Your task to perform on an android device: Show me popular games on the Play Store Image 0: 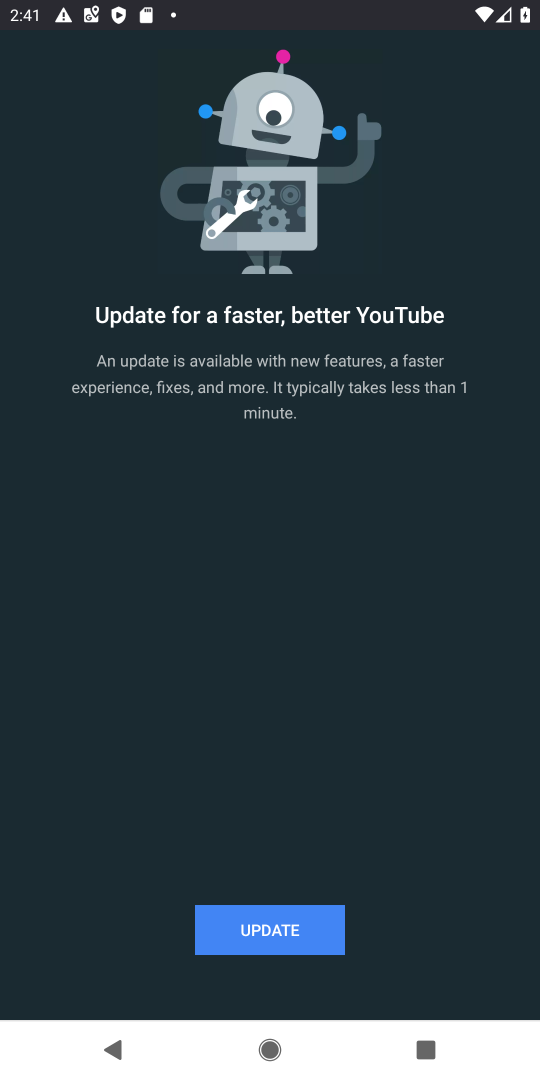
Step 0: press back button
Your task to perform on an android device: Show me popular games on the Play Store Image 1: 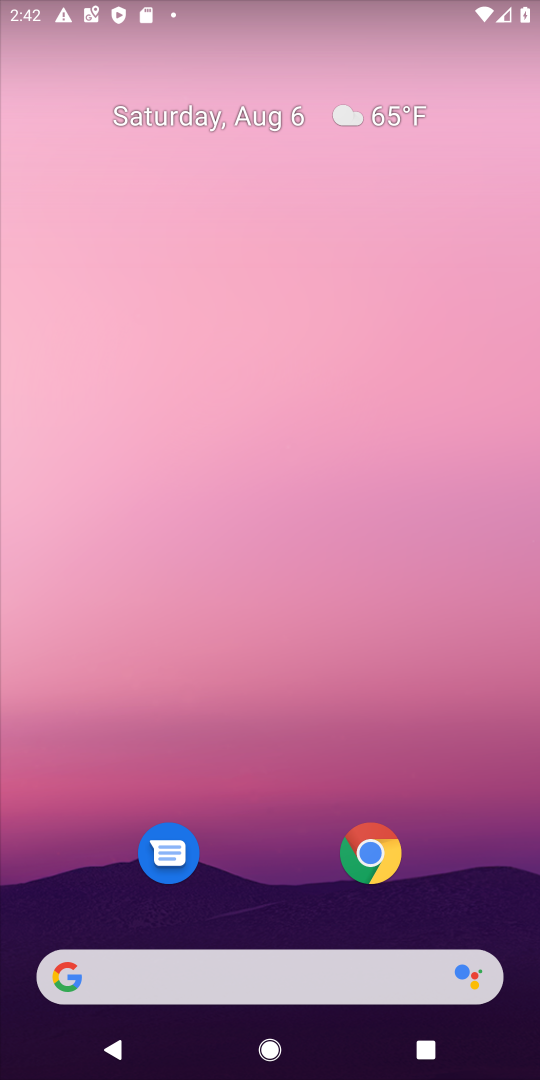
Step 1: drag from (229, 856) to (443, 84)
Your task to perform on an android device: Show me popular games on the Play Store Image 2: 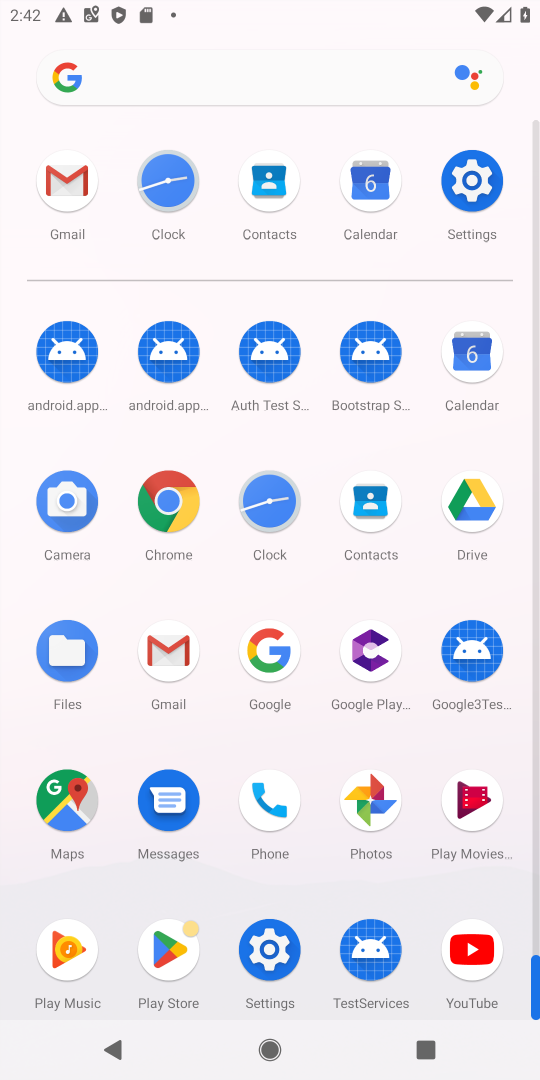
Step 2: click (166, 942)
Your task to perform on an android device: Show me popular games on the Play Store Image 3: 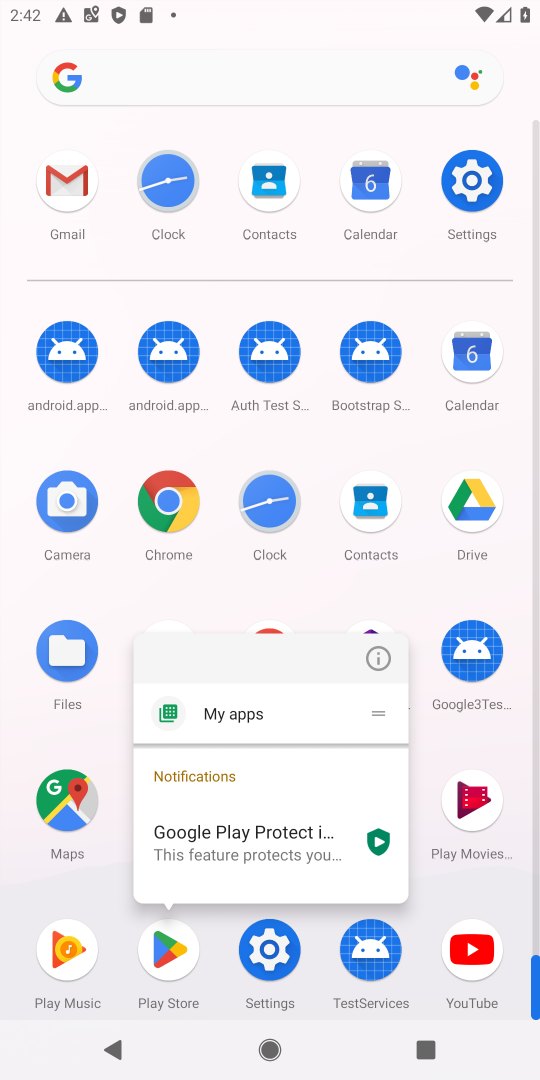
Step 3: click (189, 964)
Your task to perform on an android device: Show me popular games on the Play Store Image 4: 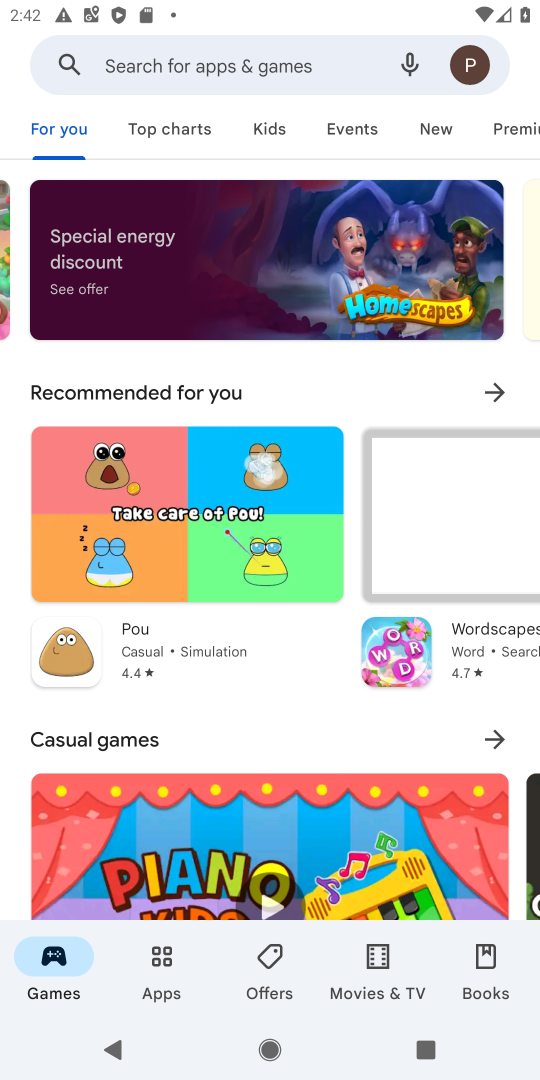
Step 4: drag from (265, 856) to (422, 159)
Your task to perform on an android device: Show me popular games on the Play Store Image 5: 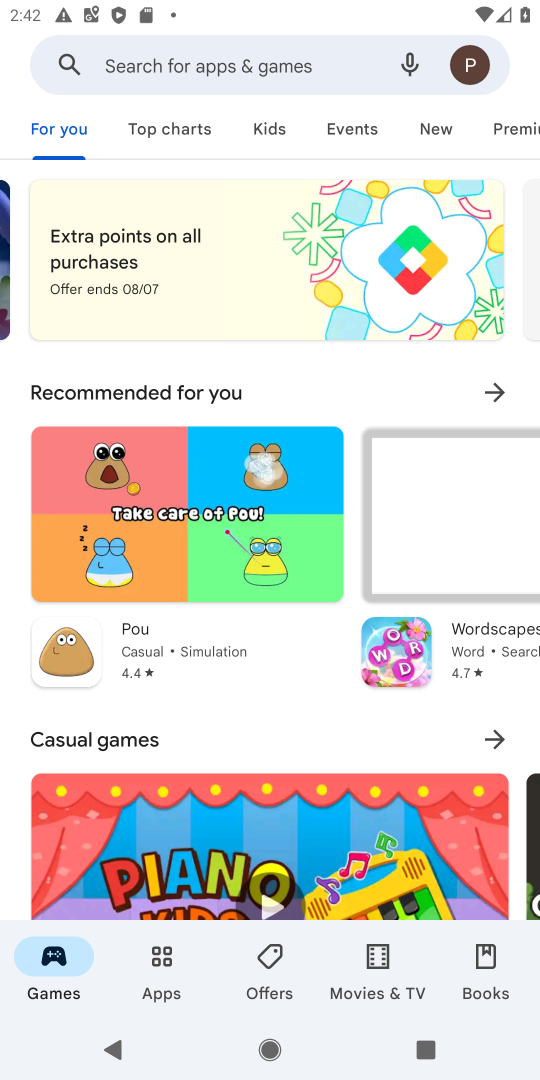
Step 5: drag from (17, 876) to (73, 193)
Your task to perform on an android device: Show me popular games on the Play Store Image 6: 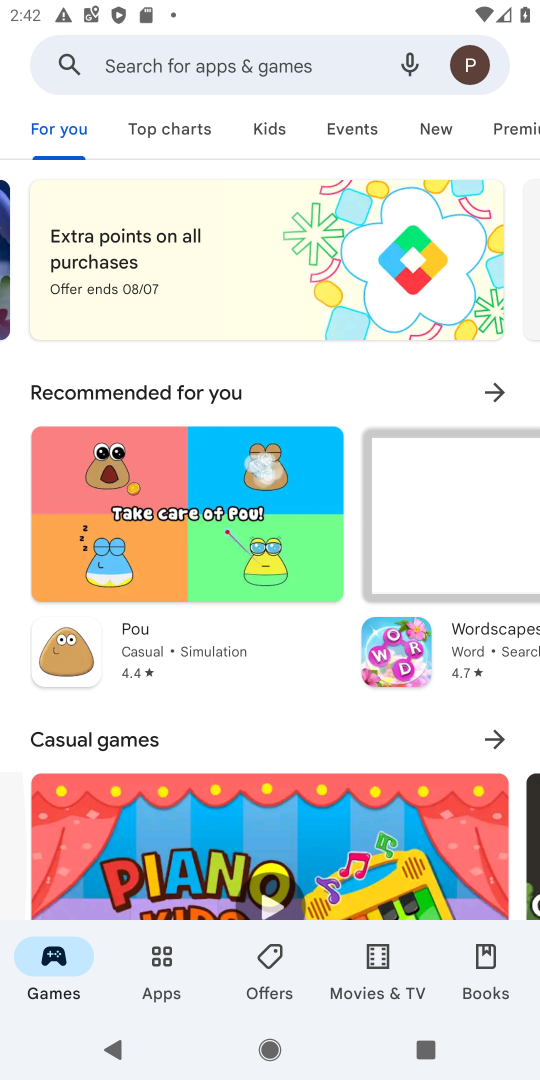
Step 6: drag from (9, 847) to (21, 192)
Your task to perform on an android device: Show me popular games on the Play Store Image 7: 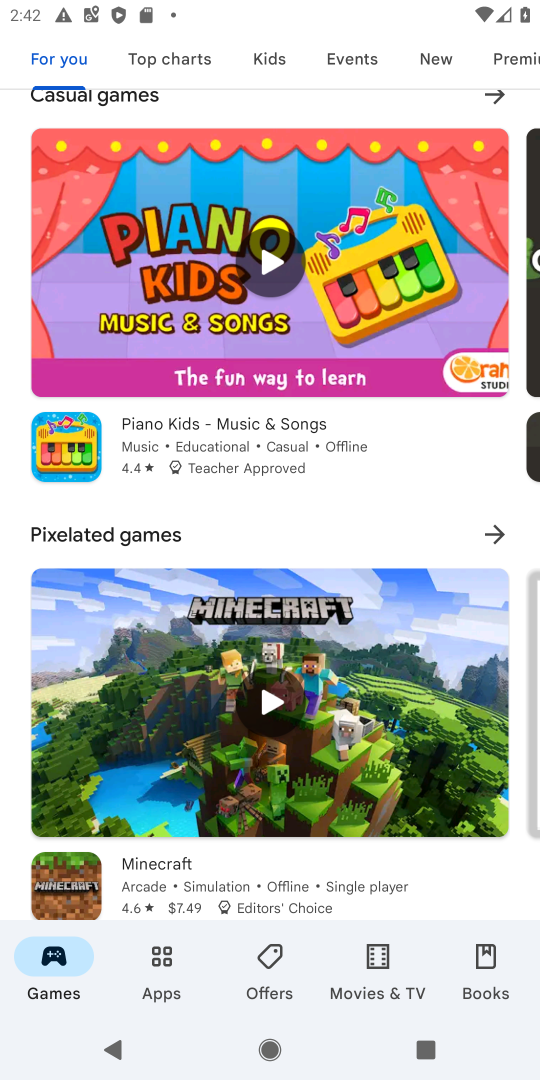
Step 7: drag from (18, 874) to (45, 211)
Your task to perform on an android device: Show me popular games on the Play Store Image 8: 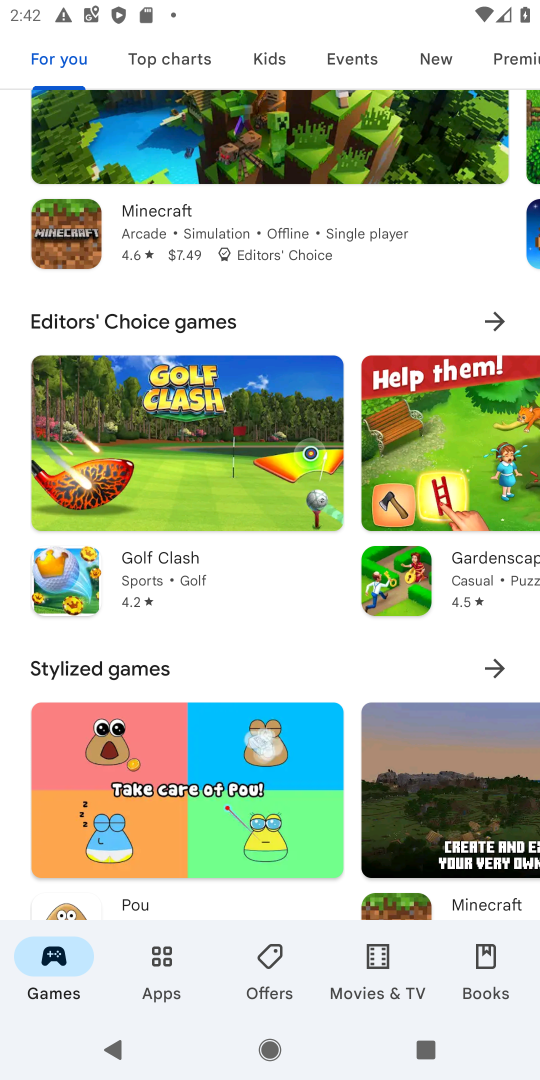
Step 8: drag from (13, 867) to (38, 220)
Your task to perform on an android device: Show me popular games on the Play Store Image 9: 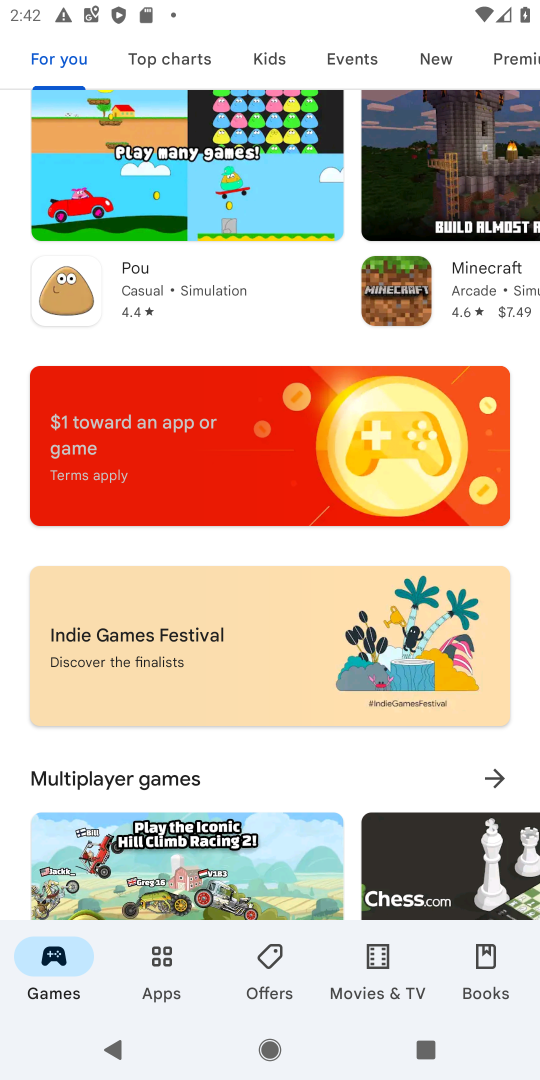
Step 9: drag from (27, 870) to (1, 287)
Your task to perform on an android device: Show me popular games on the Play Store Image 10: 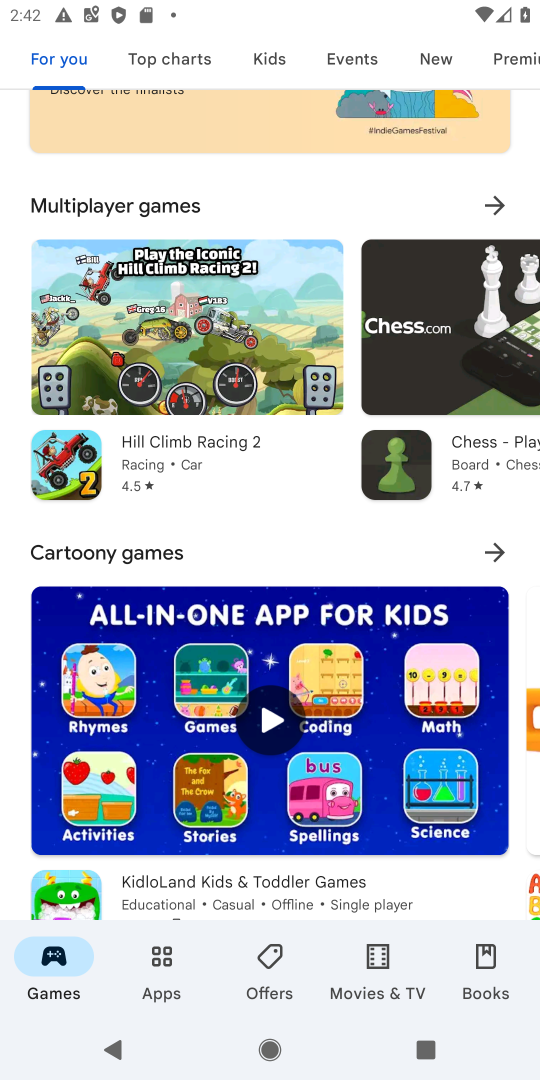
Step 10: drag from (23, 863) to (13, 218)
Your task to perform on an android device: Show me popular games on the Play Store Image 11: 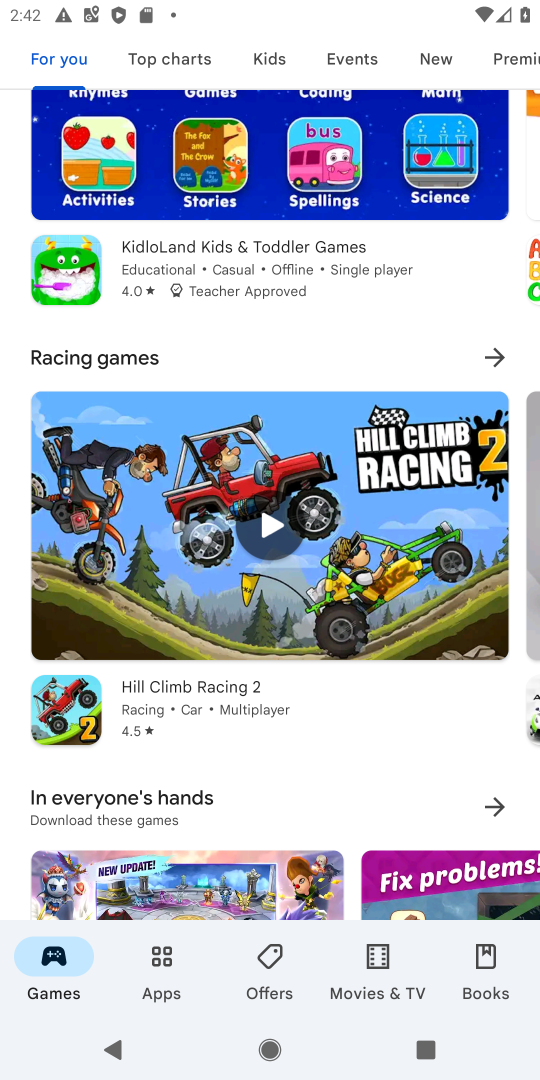
Step 11: drag from (19, 881) to (0, 249)
Your task to perform on an android device: Show me popular games on the Play Store Image 12: 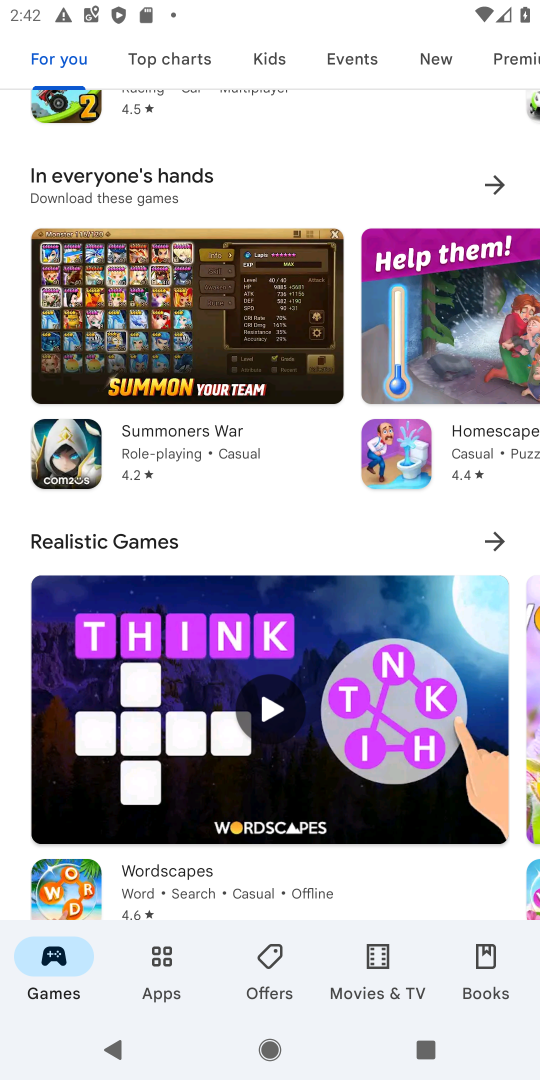
Step 12: drag from (19, 911) to (24, 229)
Your task to perform on an android device: Show me popular games on the Play Store Image 13: 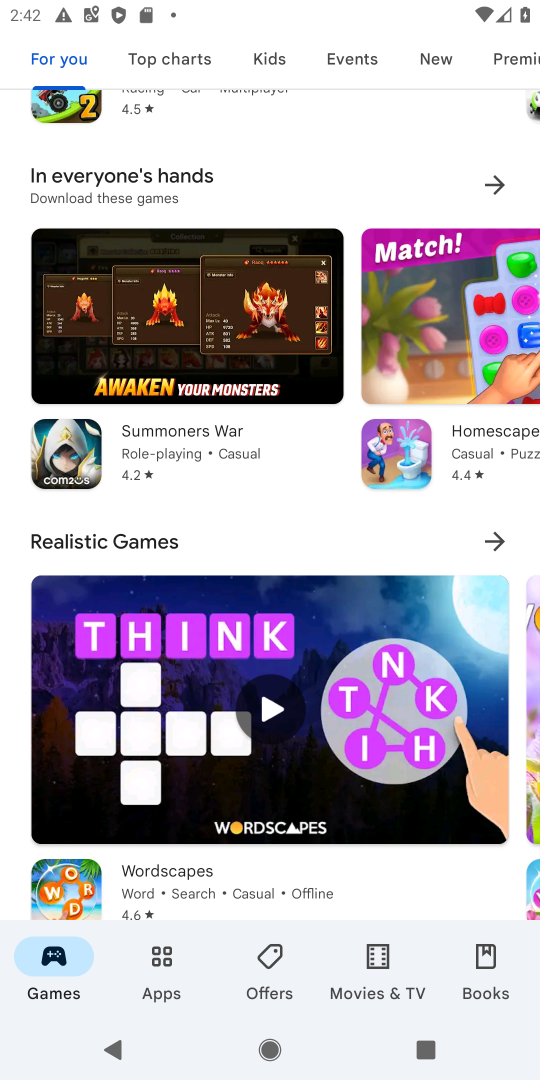
Step 13: drag from (18, 811) to (54, 279)
Your task to perform on an android device: Show me popular games on the Play Store Image 14: 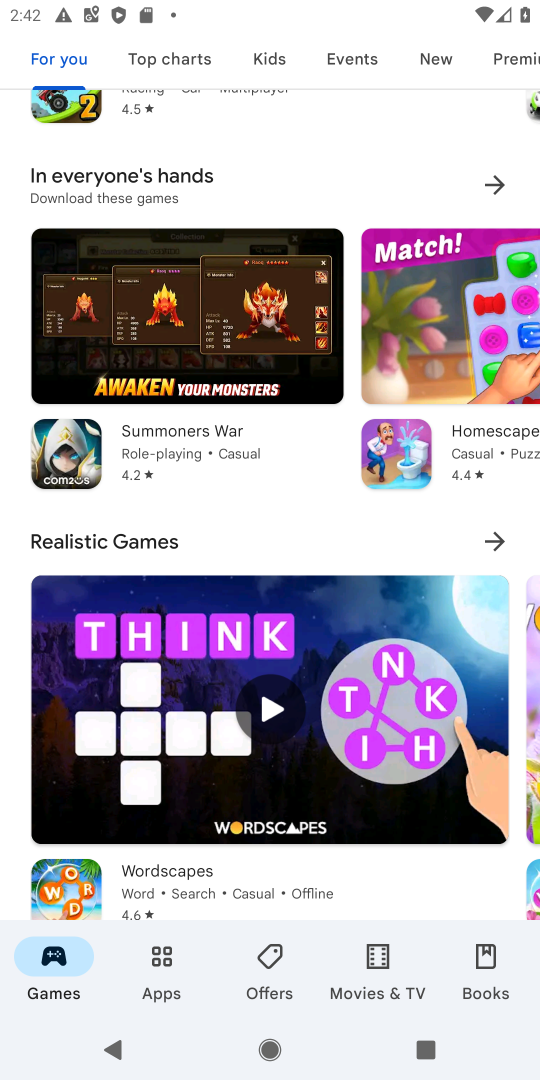
Step 14: drag from (9, 830) to (0, 578)
Your task to perform on an android device: Show me popular games on the Play Store Image 15: 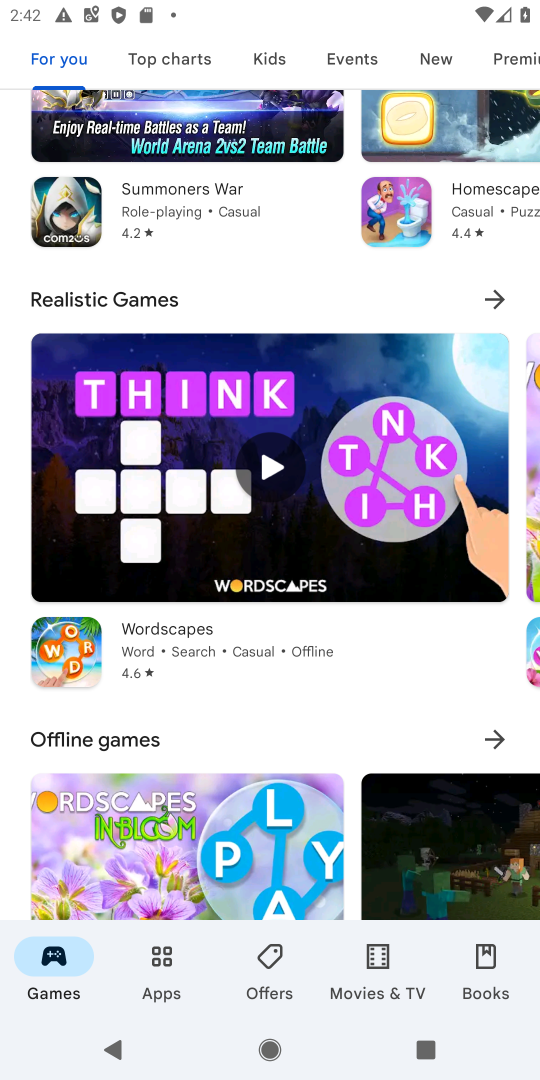
Step 15: drag from (17, 873) to (10, 487)
Your task to perform on an android device: Show me popular games on the Play Store Image 16: 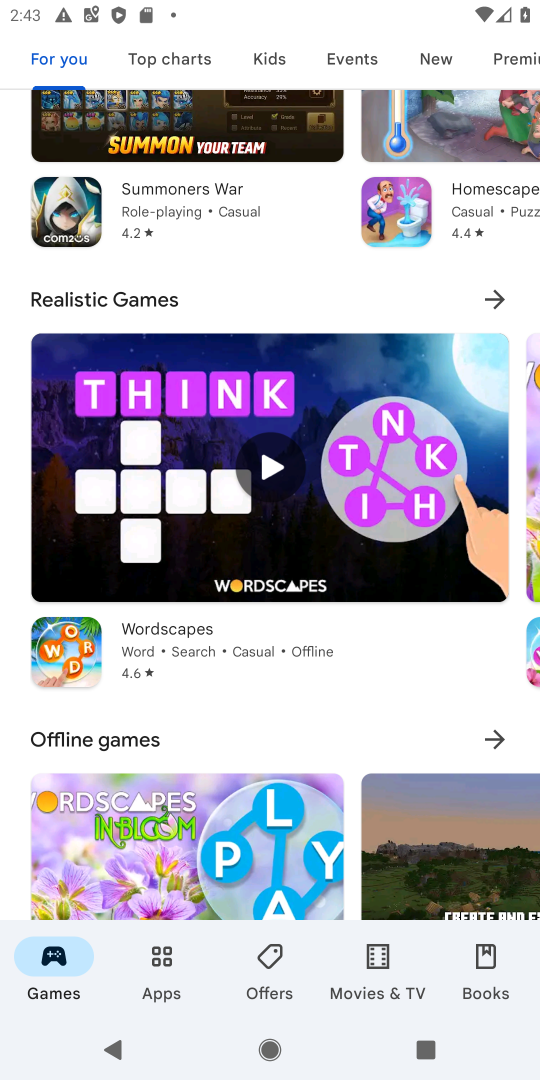
Step 16: drag from (10, 856) to (15, 161)
Your task to perform on an android device: Show me popular games on the Play Store Image 17: 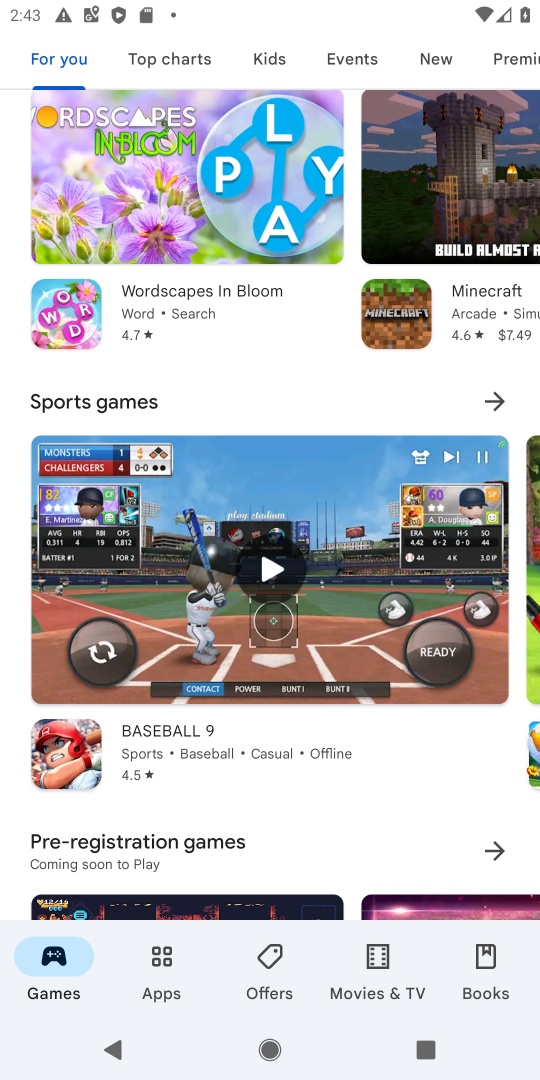
Step 17: drag from (8, 823) to (5, 110)
Your task to perform on an android device: Show me popular games on the Play Store Image 18: 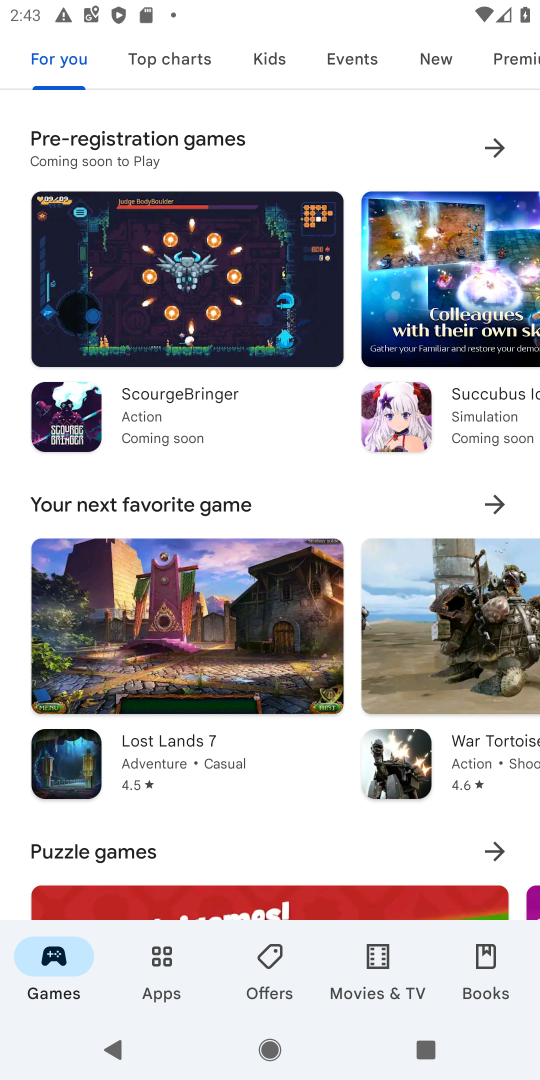
Step 18: drag from (19, 917) to (35, 179)
Your task to perform on an android device: Show me popular games on the Play Store Image 19: 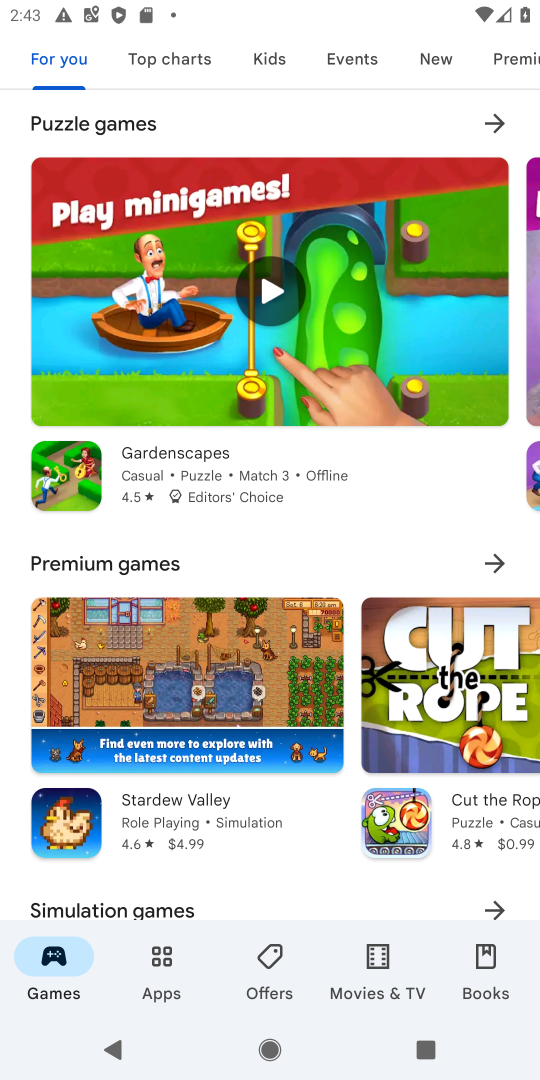
Step 19: drag from (6, 869) to (12, 143)
Your task to perform on an android device: Show me popular games on the Play Store Image 20: 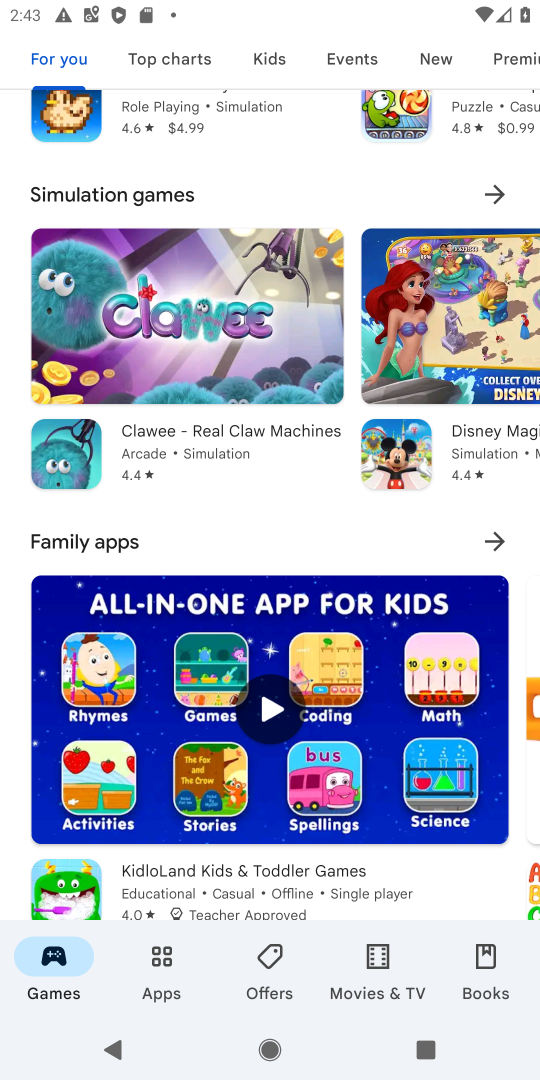
Step 20: drag from (2, 883) to (2, 190)
Your task to perform on an android device: Show me popular games on the Play Store Image 21: 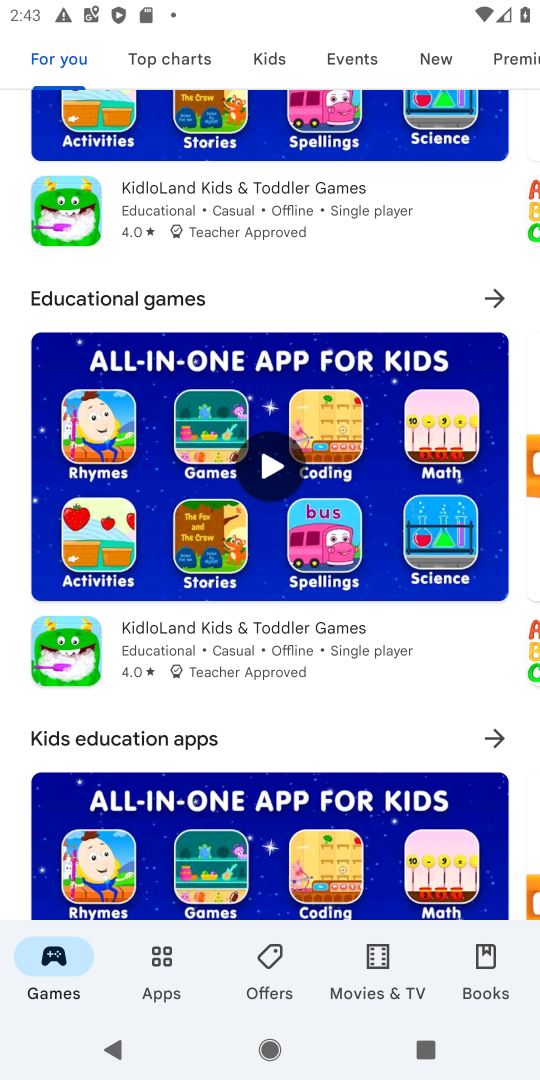
Step 21: drag from (19, 923) to (26, 112)
Your task to perform on an android device: Show me popular games on the Play Store Image 22: 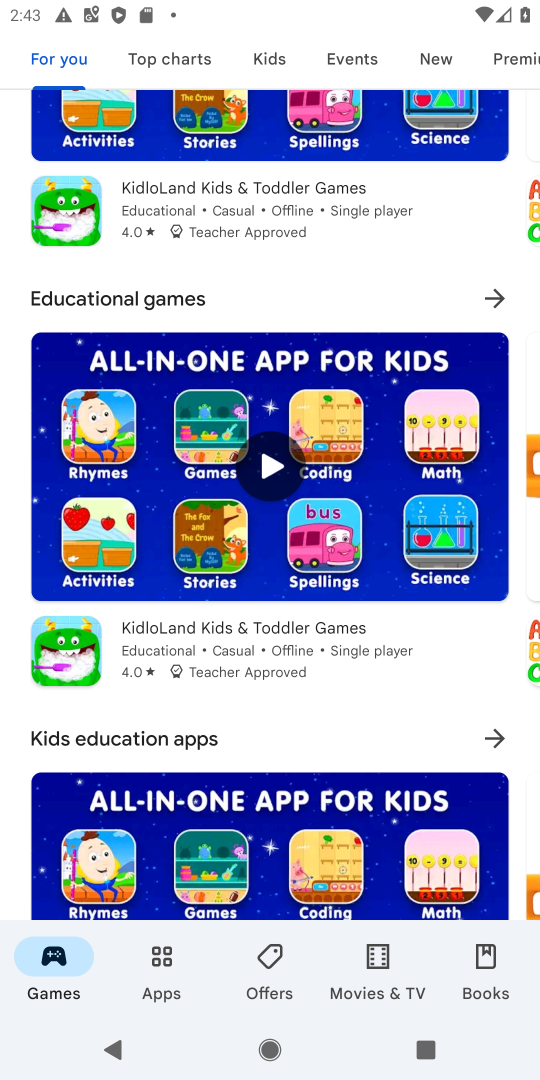
Step 22: drag from (15, 893) to (33, 186)
Your task to perform on an android device: Show me popular games on the Play Store Image 23: 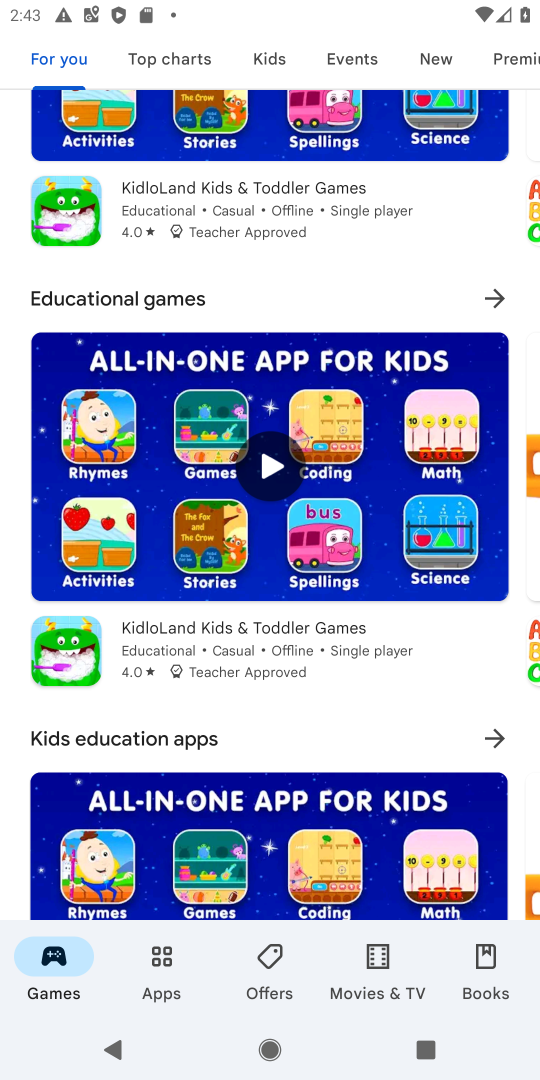
Step 23: drag from (27, 917) to (10, 256)
Your task to perform on an android device: Show me popular games on the Play Store Image 24: 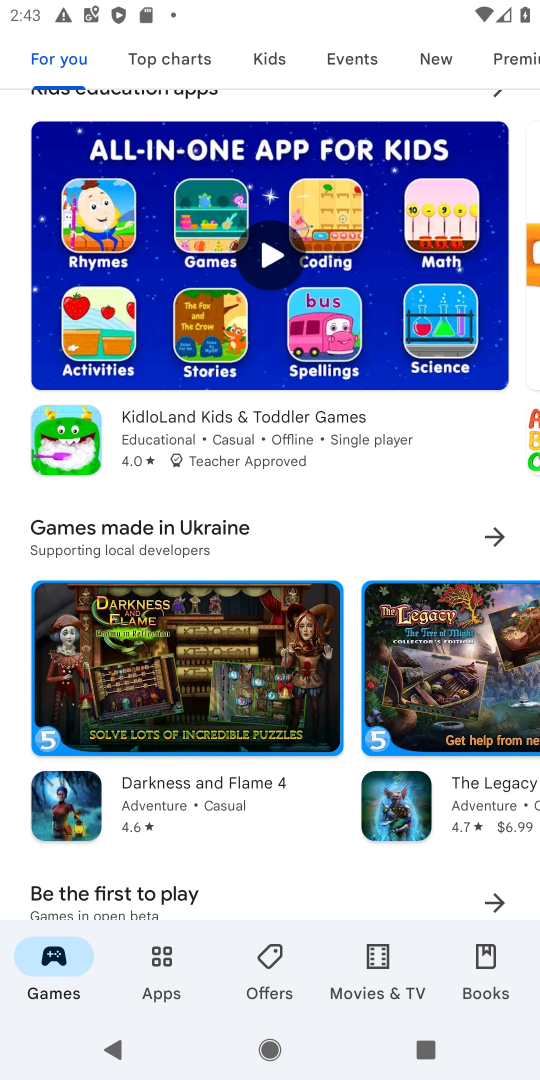
Step 24: drag from (12, 863) to (12, 180)
Your task to perform on an android device: Show me popular games on the Play Store Image 25: 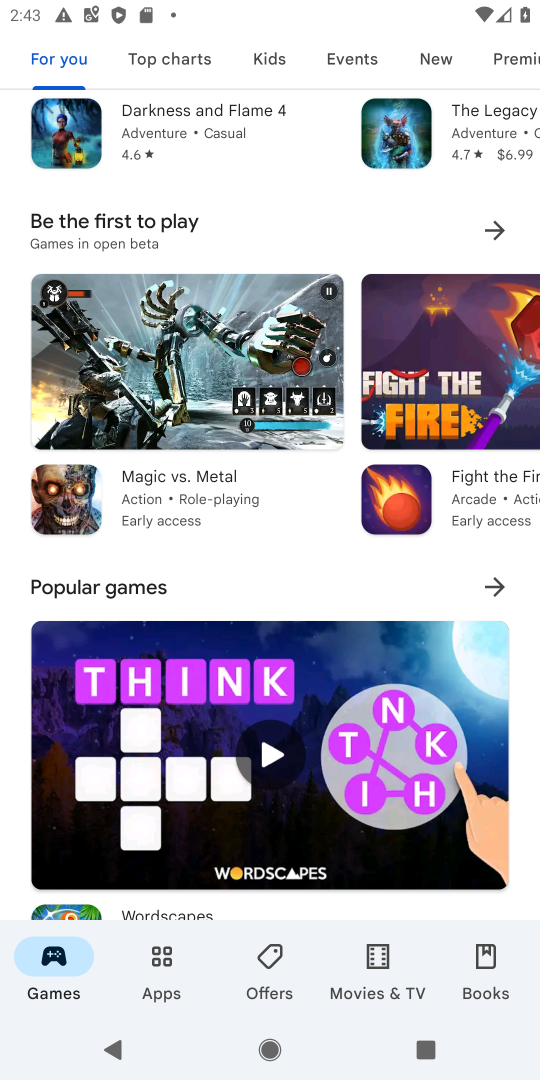
Step 25: click (510, 571)
Your task to perform on an android device: Show me popular games on the Play Store Image 26: 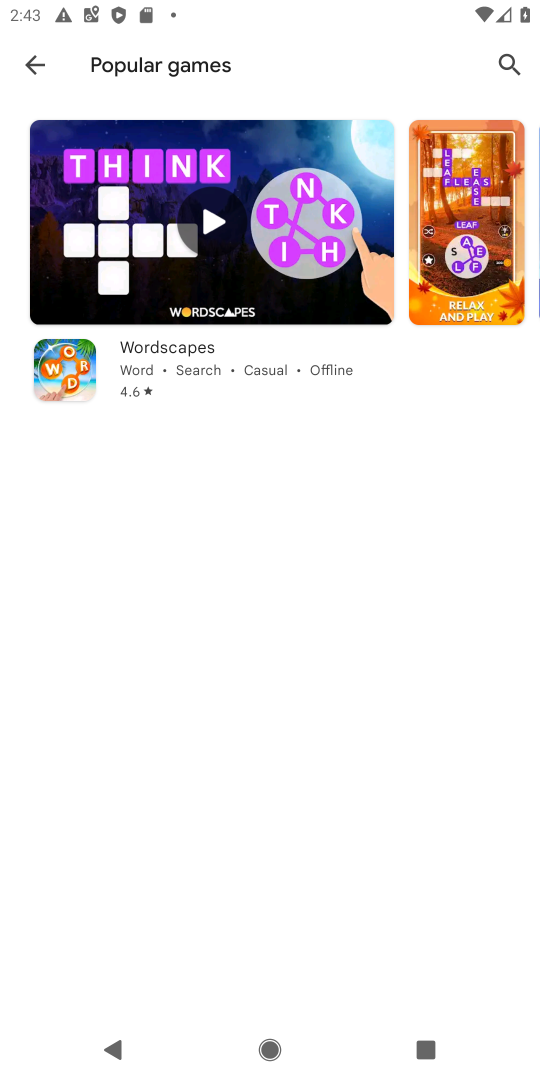
Step 26: task complete